Your task to perform on an android device: What's the weather? Image 0: 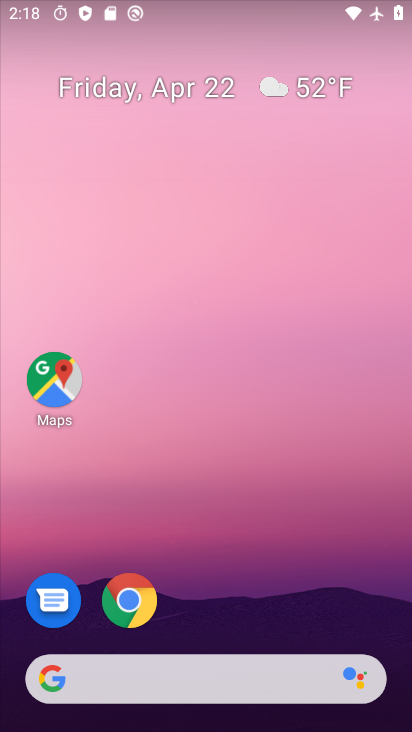
Step 0: click (272, 83)
Your task to perform on an android device: What's the weather? Image 1: 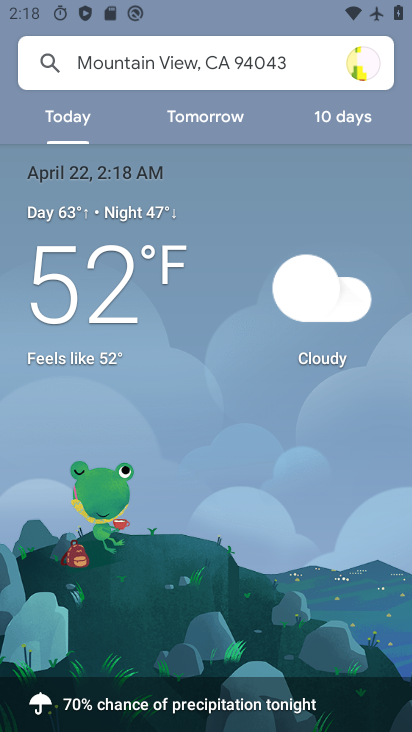
Step 1: task complete